Your task to perform on an android device: Open the calendar and show me this week's events? Image 0: 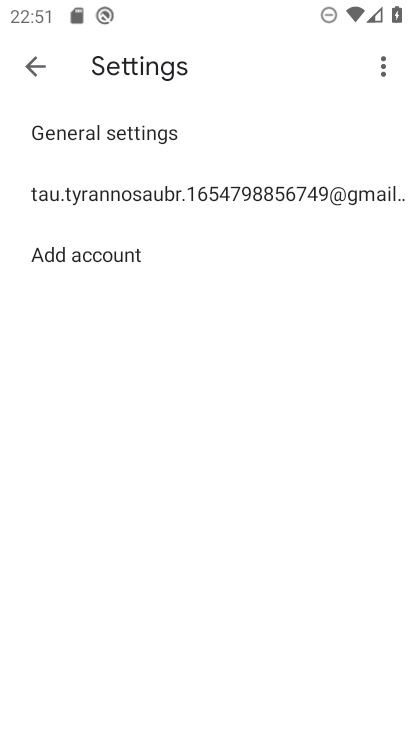
Step 0: press home button
Your task to perform on an android device: Open the calendar and show me this week's events? Image 1: 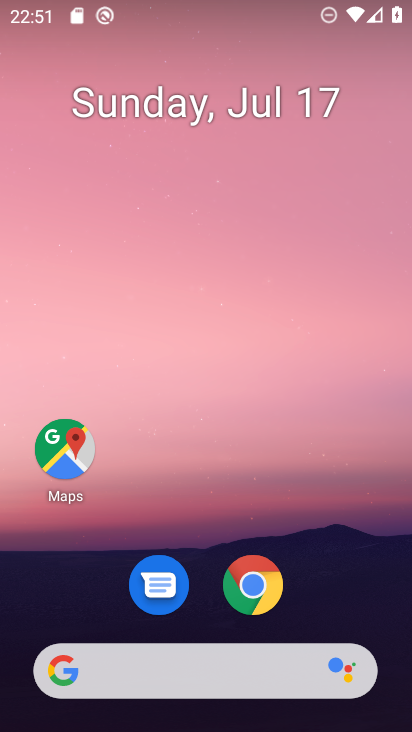
Step 1: drag from (226, 678) to (322, 192)
Your task to perform on an android device: Open the calendar and show me this week's events? Image 2: 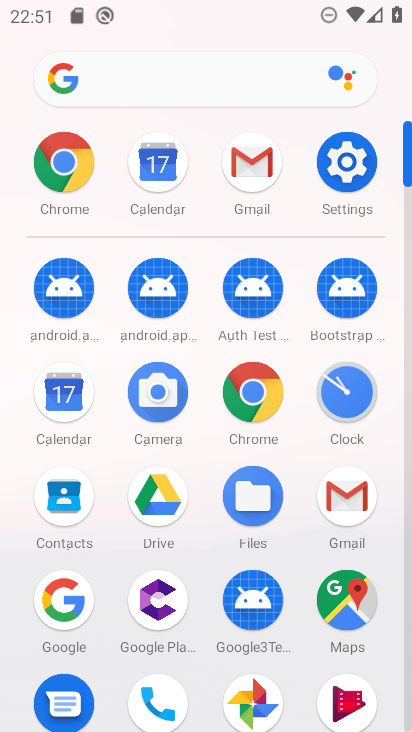
Step 2: click (68, 393)
Your task to perform on an android device: Open the calendar and show me this week's events? Image 3: 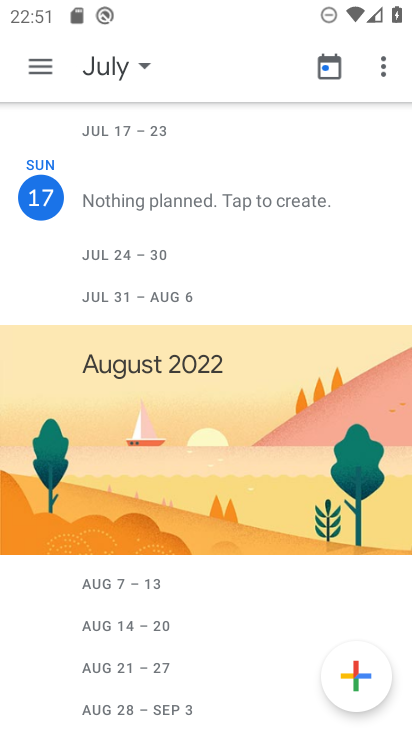
Step 3: task complete